Your task to perform on an android device: Go to calendar. Show me events next week Image 0: 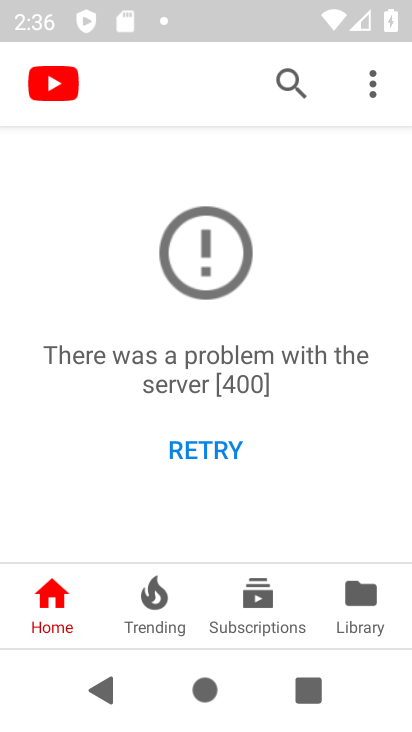
Step 0: task complete